Your task to perform on an android device: Show me the alarms in the clock app Image 0: 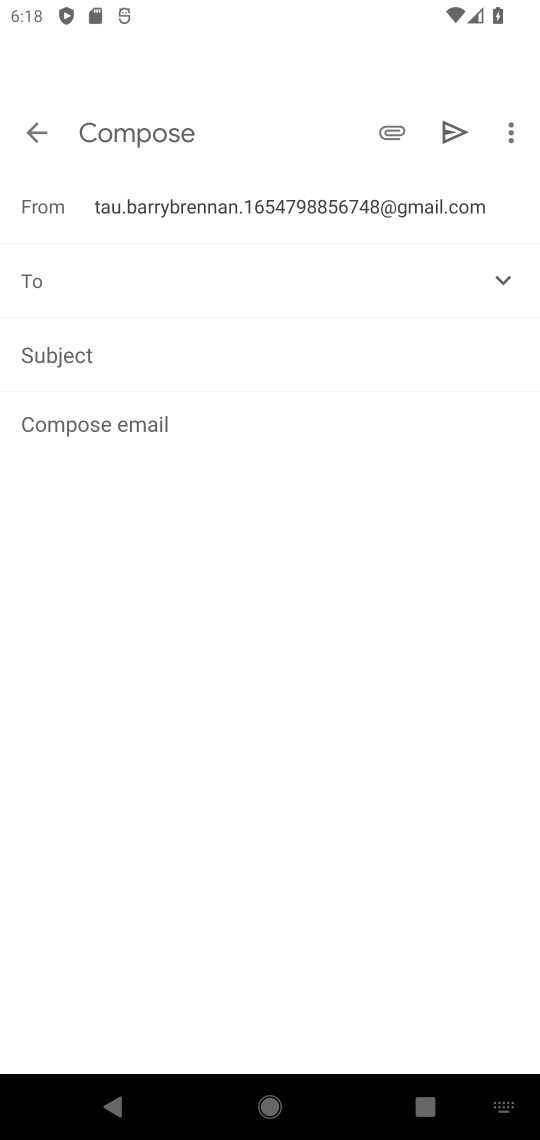
Step 0: press home button
Your task to perform on an android device: Show me the alarms in the clock app Image 1: 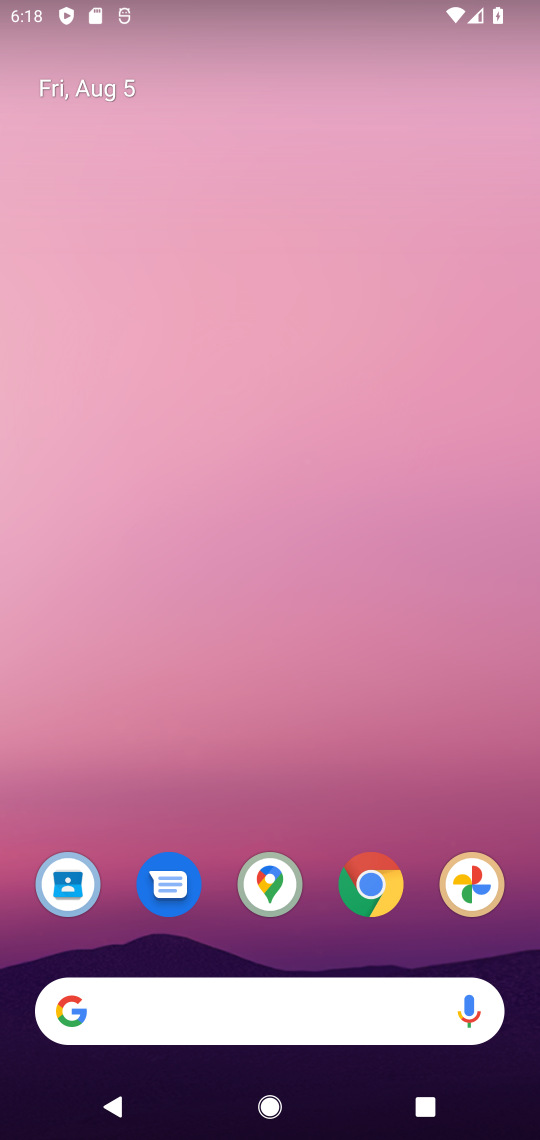
Step 1: drag from (314, 954) to (323, 152)
Your task to perform on an android device: Show me the alarms in the clock app Image 2: 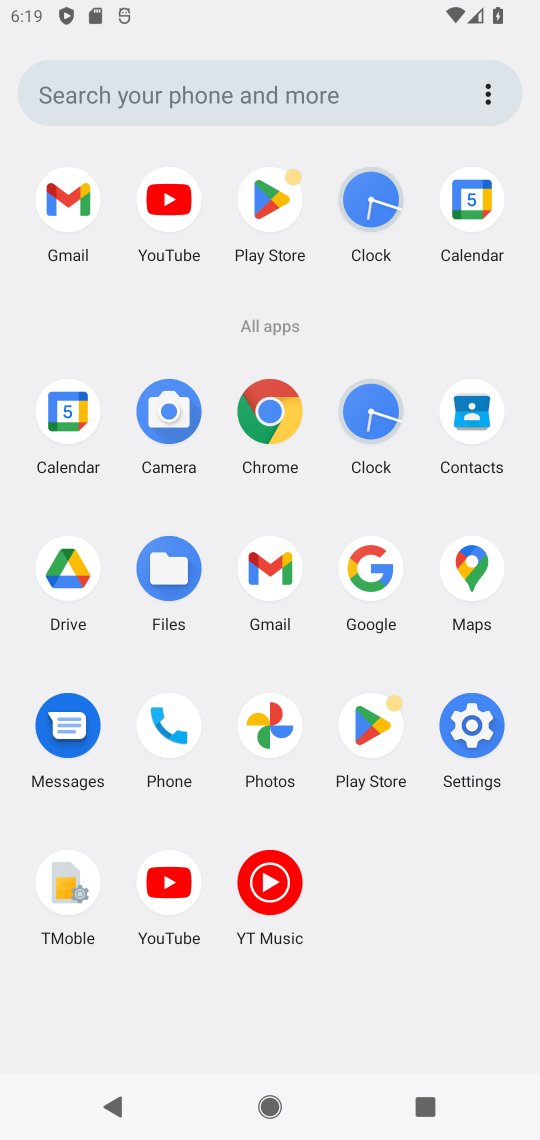
Step 2: click (364, 398)
Your task to perform on an android device: Show me the alarms in the clock app Image 3: 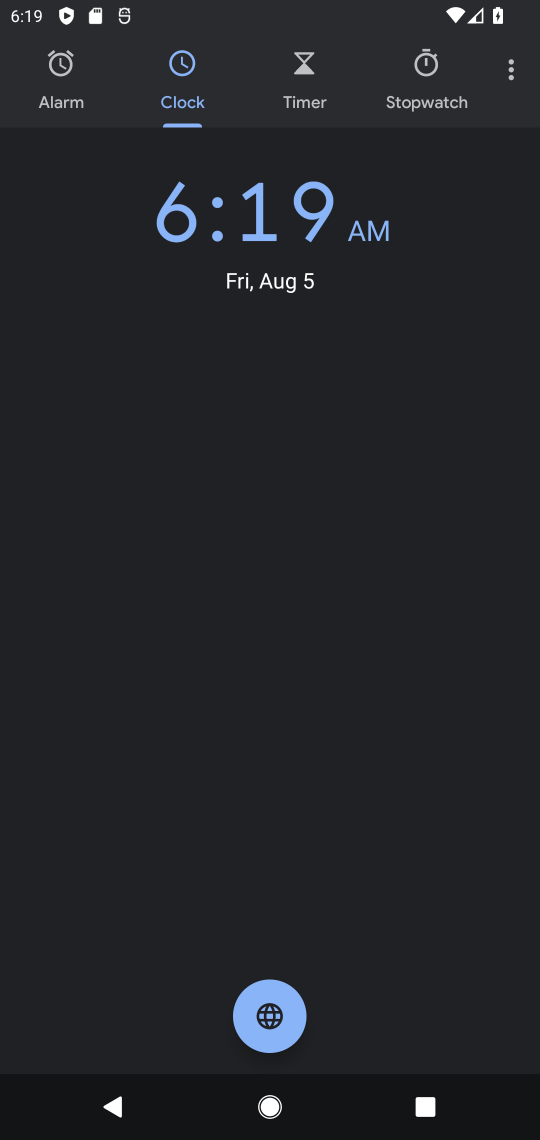
Step 3: click (56, 64)
Your task to perform on an android device: Show me the alarms in the clock app Image 4: 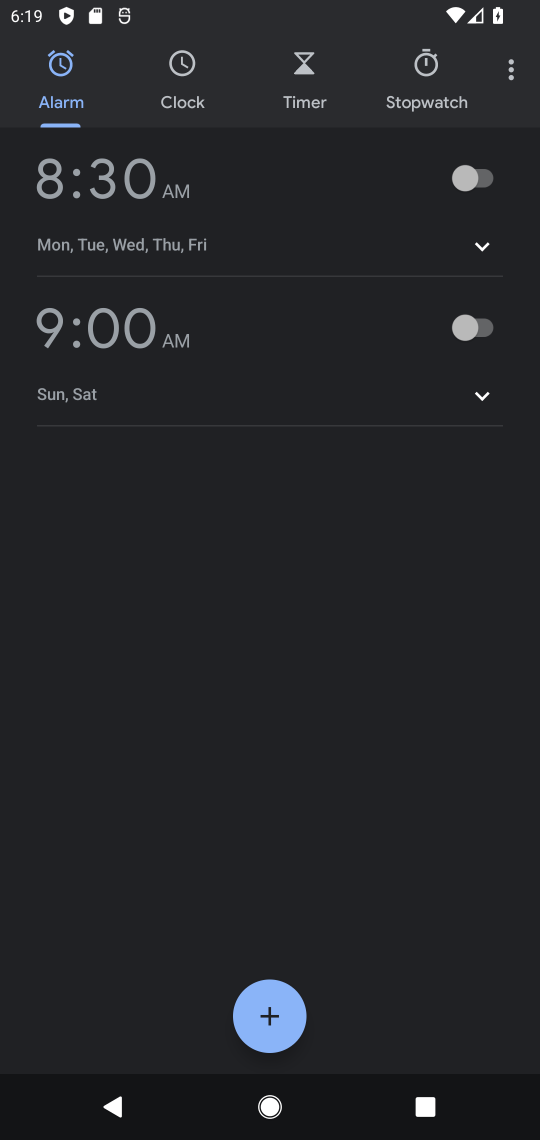
Step 4: click (479, 182)
Your task to perform on an android device: Show me the alarms in the clock app Image 5: 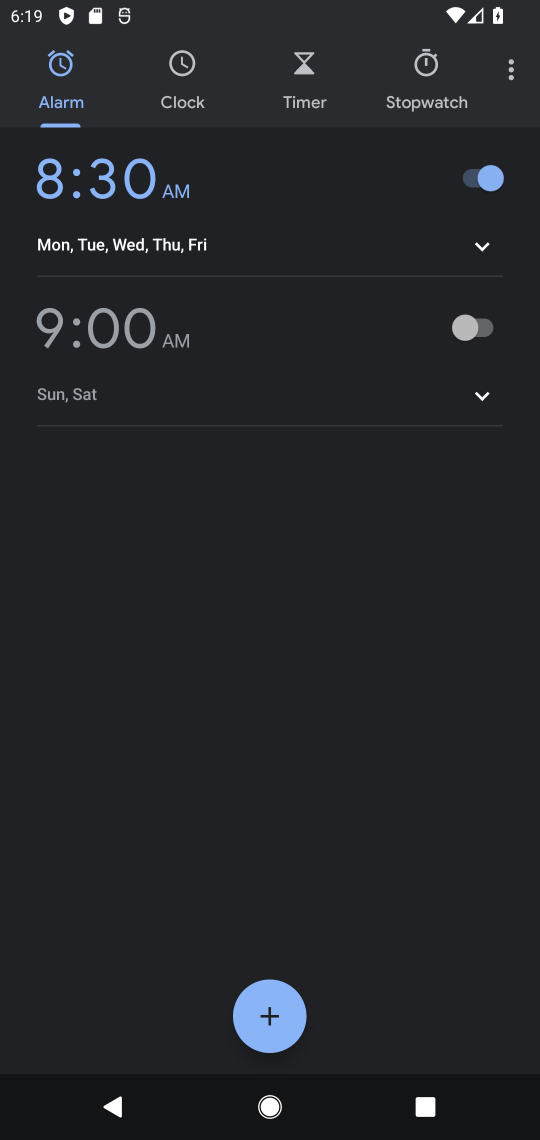
Step 5: task complete